Your task to perform on an android device: turn on javascript in the chrome app Image 0: 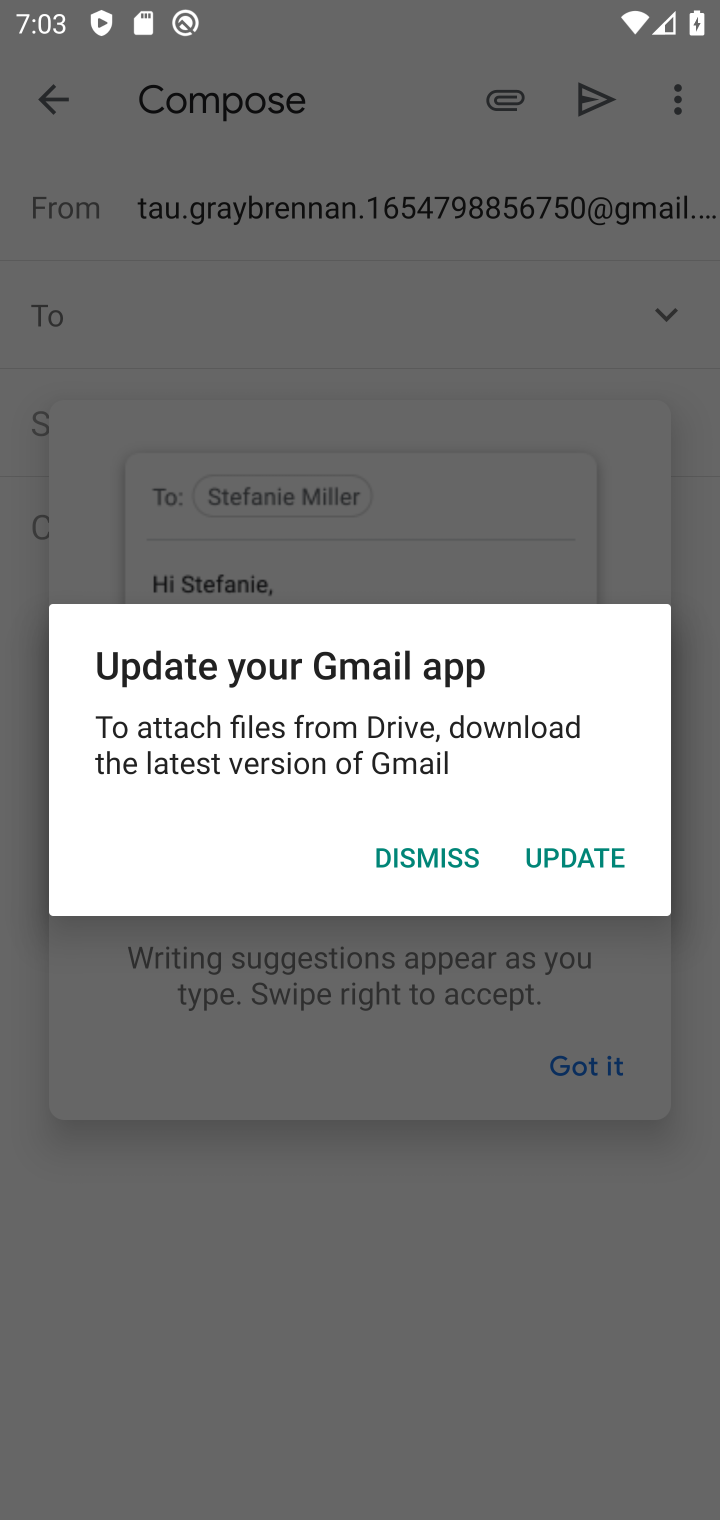
Step 0: press home button
Your task to perform on an android device: turn on javascript in the chrome app Image 1: 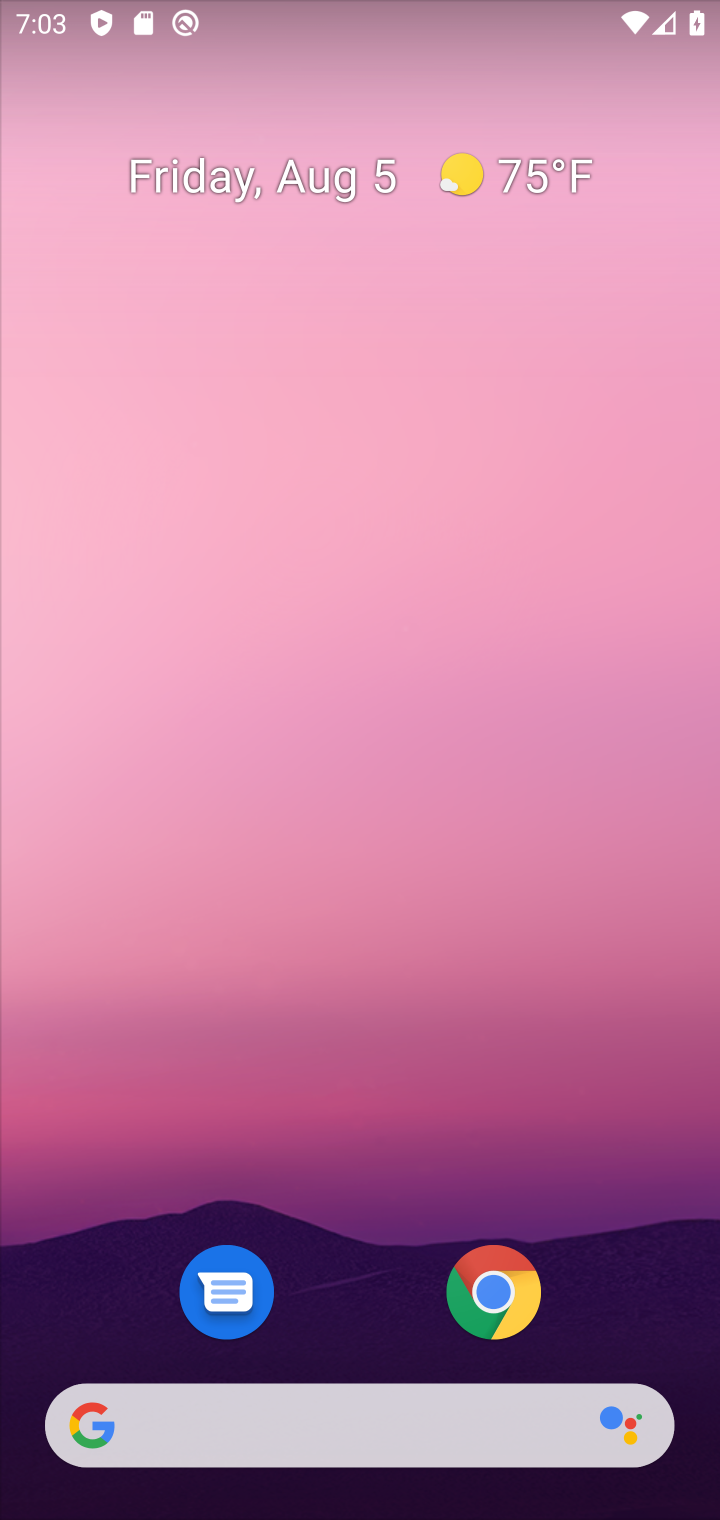
Step 1: click (502, 1295)
Your task to perform on an android device: turn on javascript in the chrome app Image 2: 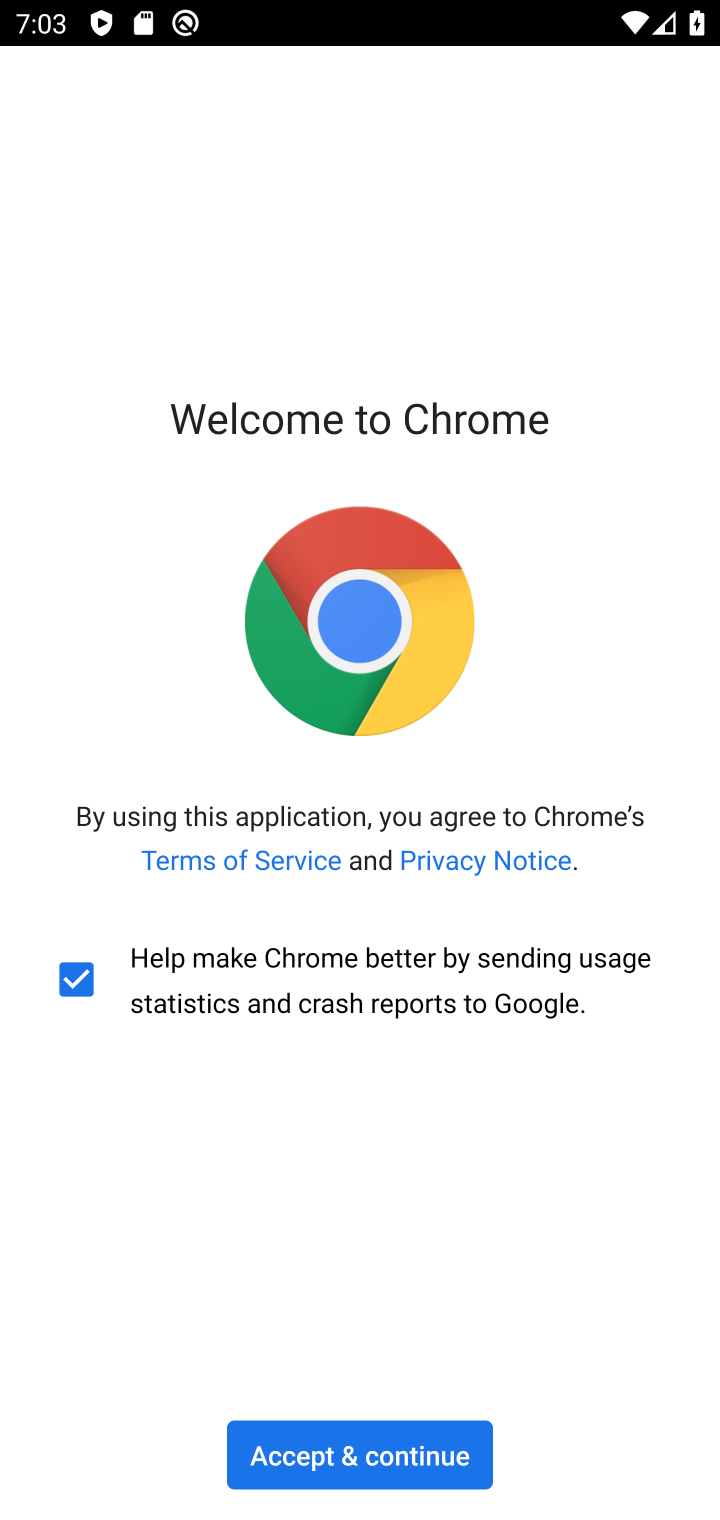
Step 2: click (423, 1455)
Your task to perform on an android device: turn on javascript in the chrome app Image 3: 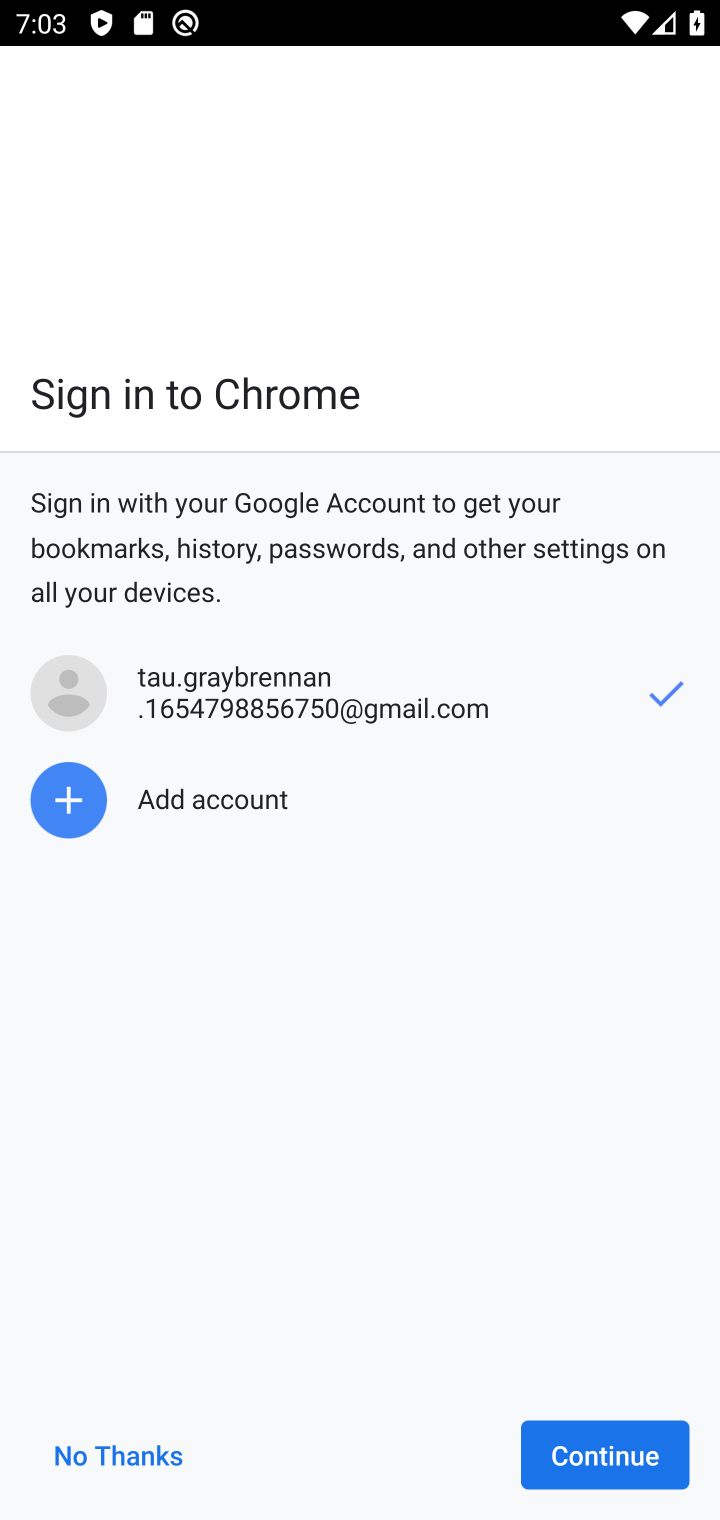
Step 3: click (555, 1455)
Your task to perform on an android device: turn on javascript in the chrome app Image 4: 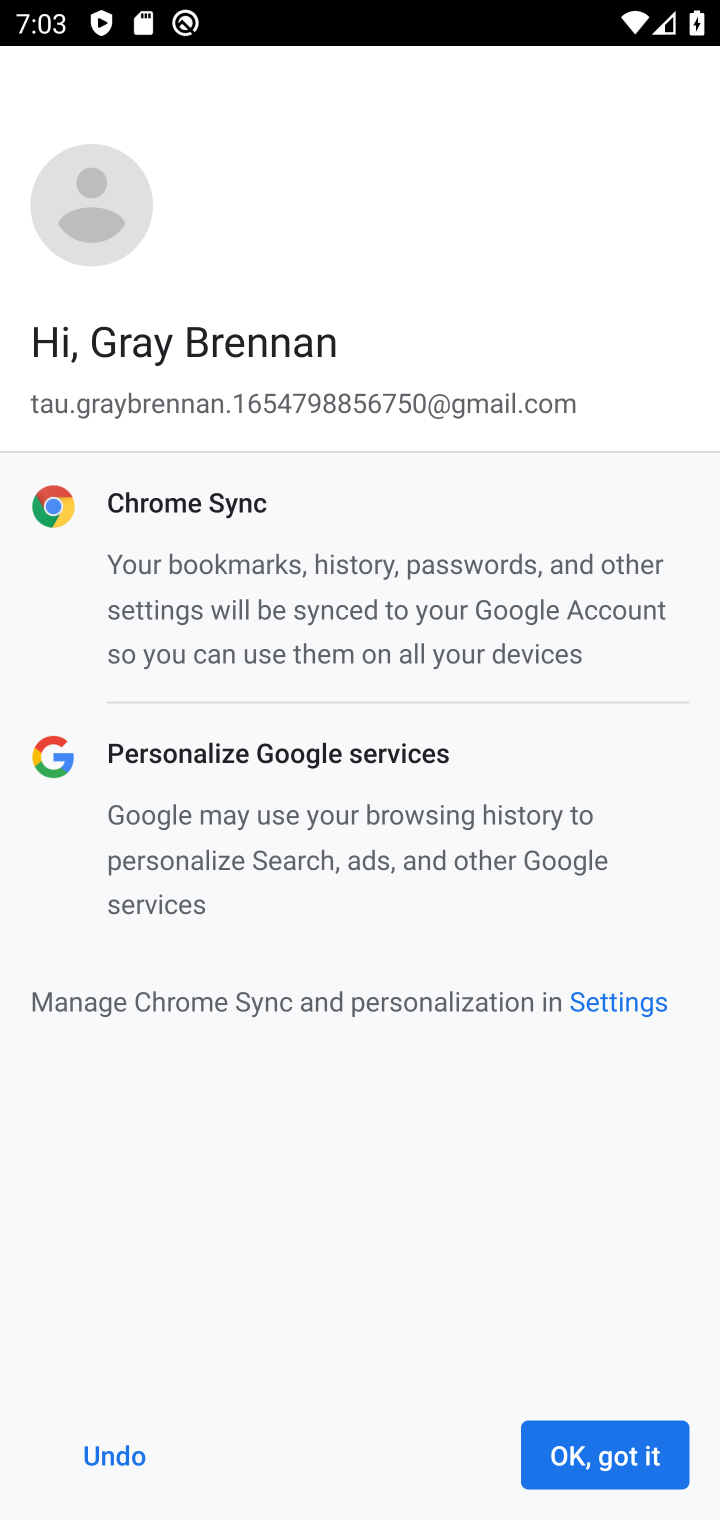
Step 4: click (555, 1455)
Your task to perform on an android device: turn on javascript in the chrome app Image 5: 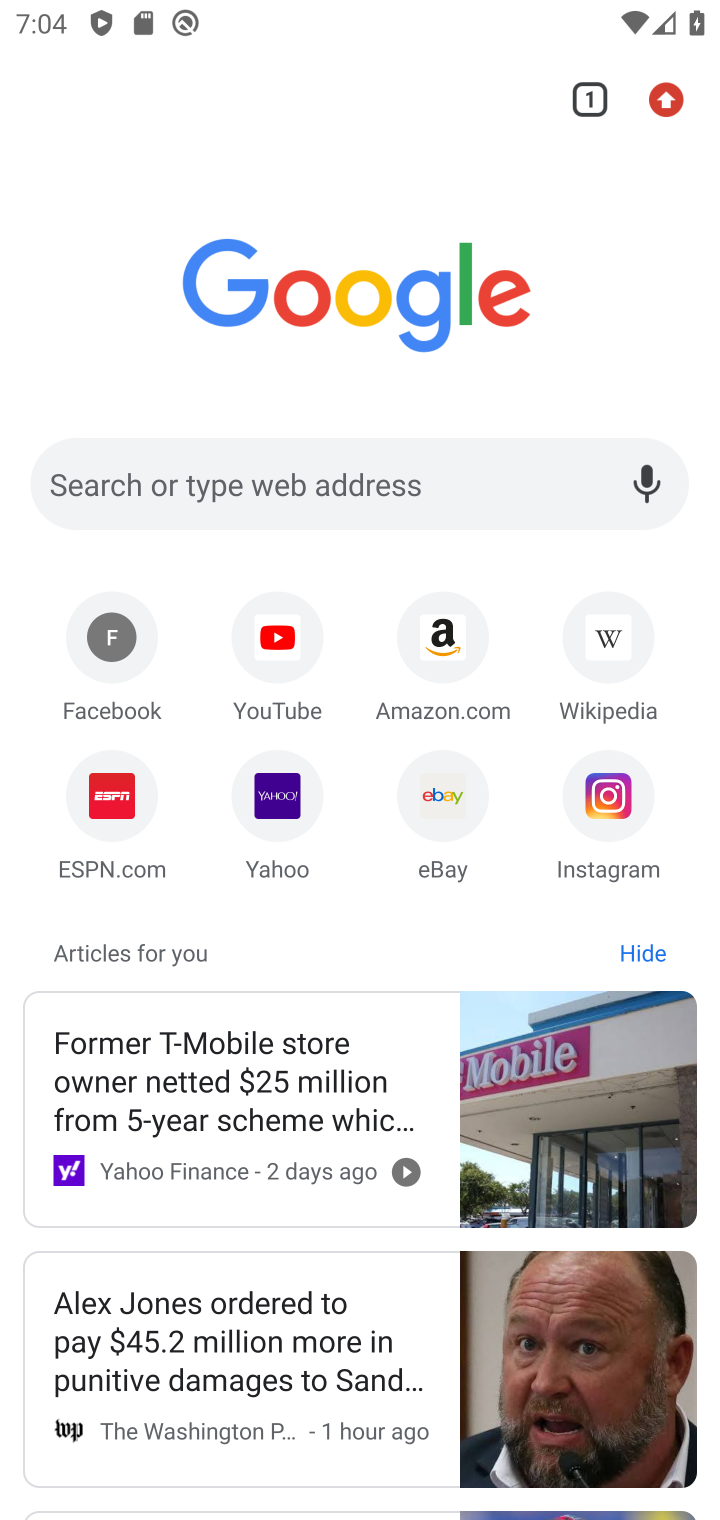
Step 5: click (670, 104)
Your task to perform on an android device: turn on javascript in the chrome app Image 6: 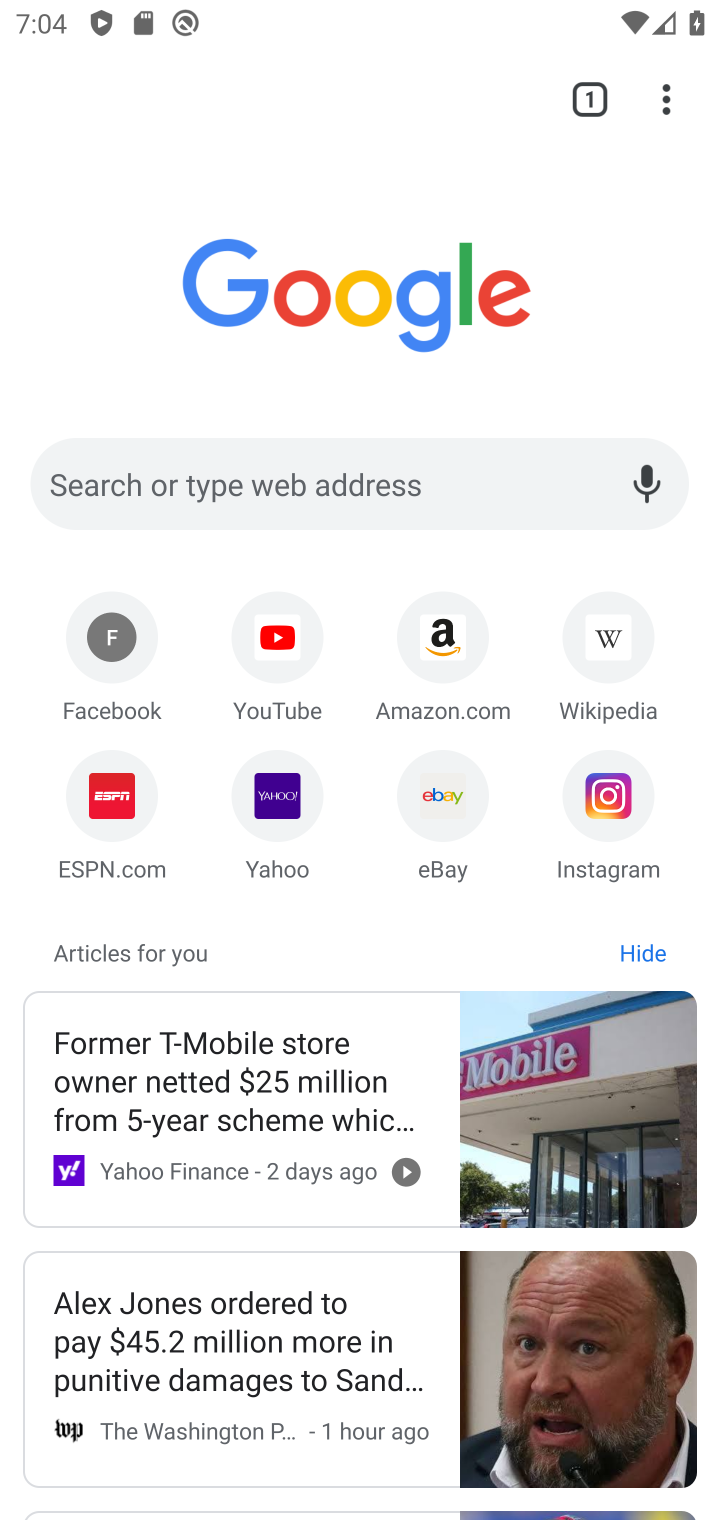
Step 6: click (668, 99)
Your task to perform on an android device: turn on javascript in the chrome app Image 7: 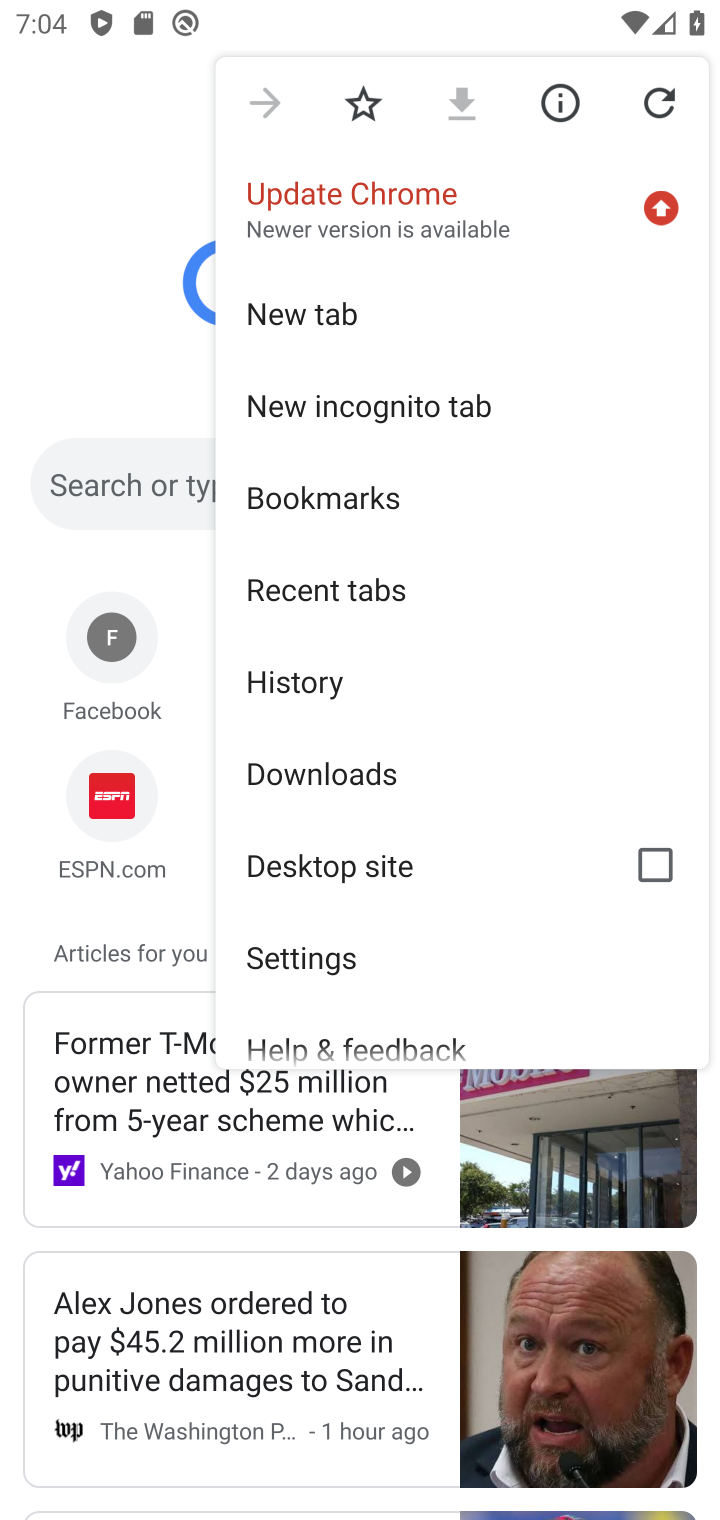
Step 7: click (327, 957)
Your task to perform on an android device: turn on javascript in the chrome app Image 8: 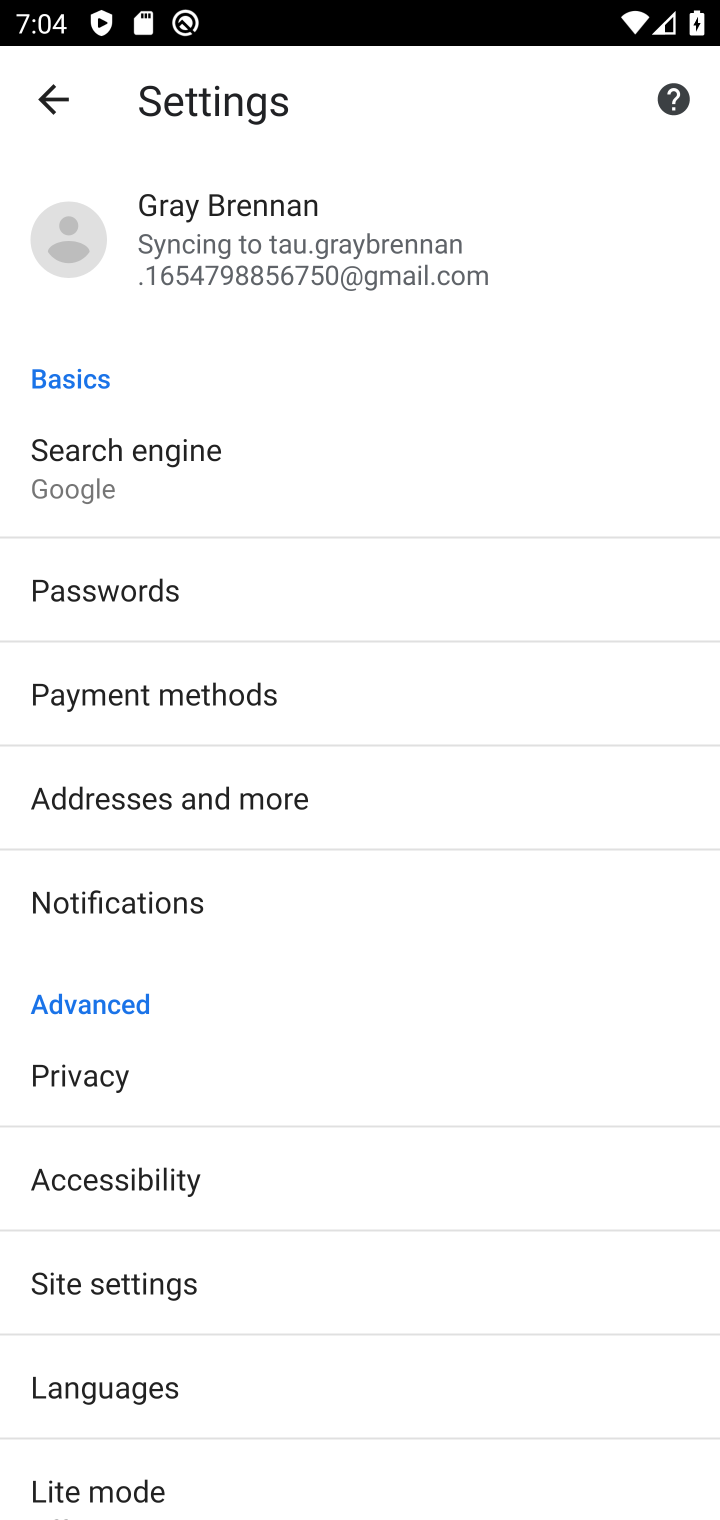
Step 8: click (206, 1271)
Your task to perform on an android device: turn on javascript in the chrome app Image 9: 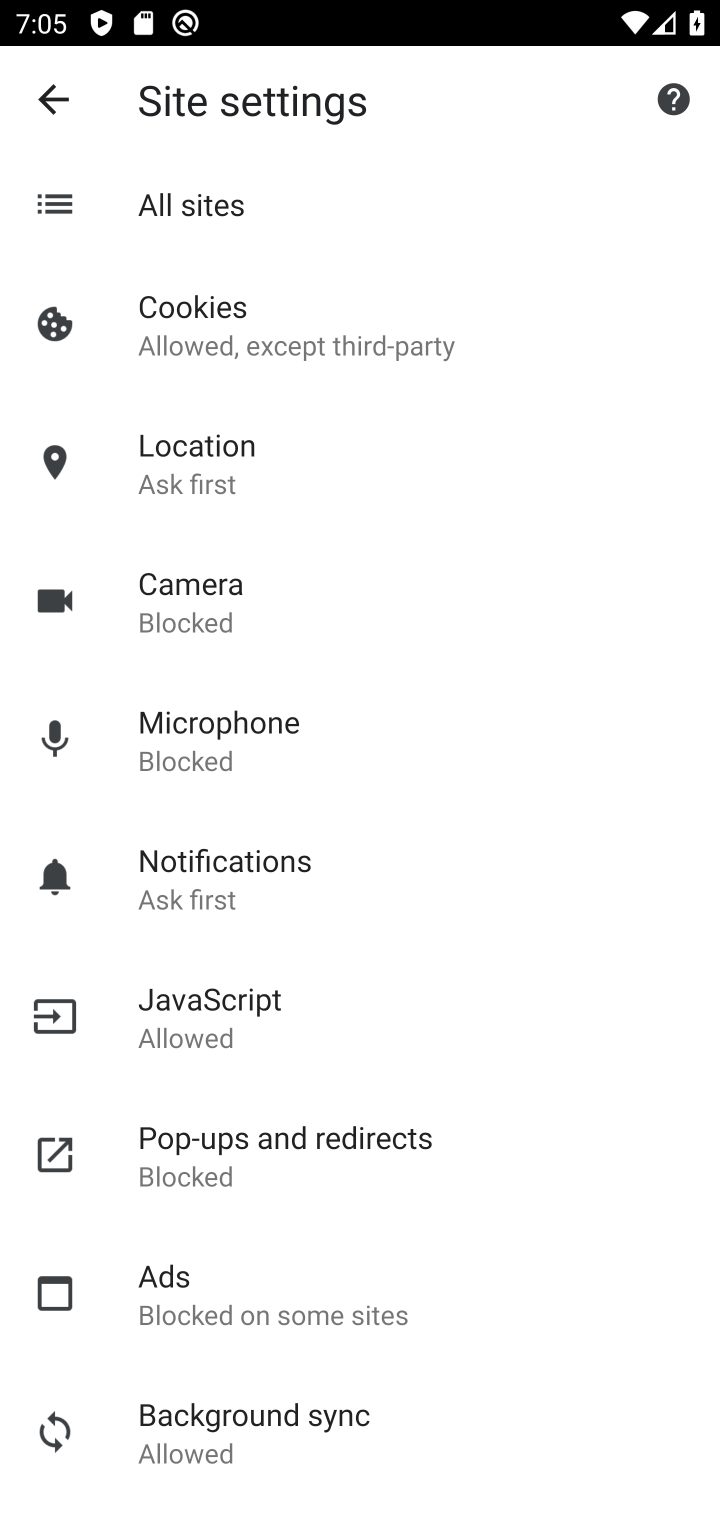
Step 9: click (247, 995)
Your task to perform on an android device: turn on javascript in the chrome app Image 10: 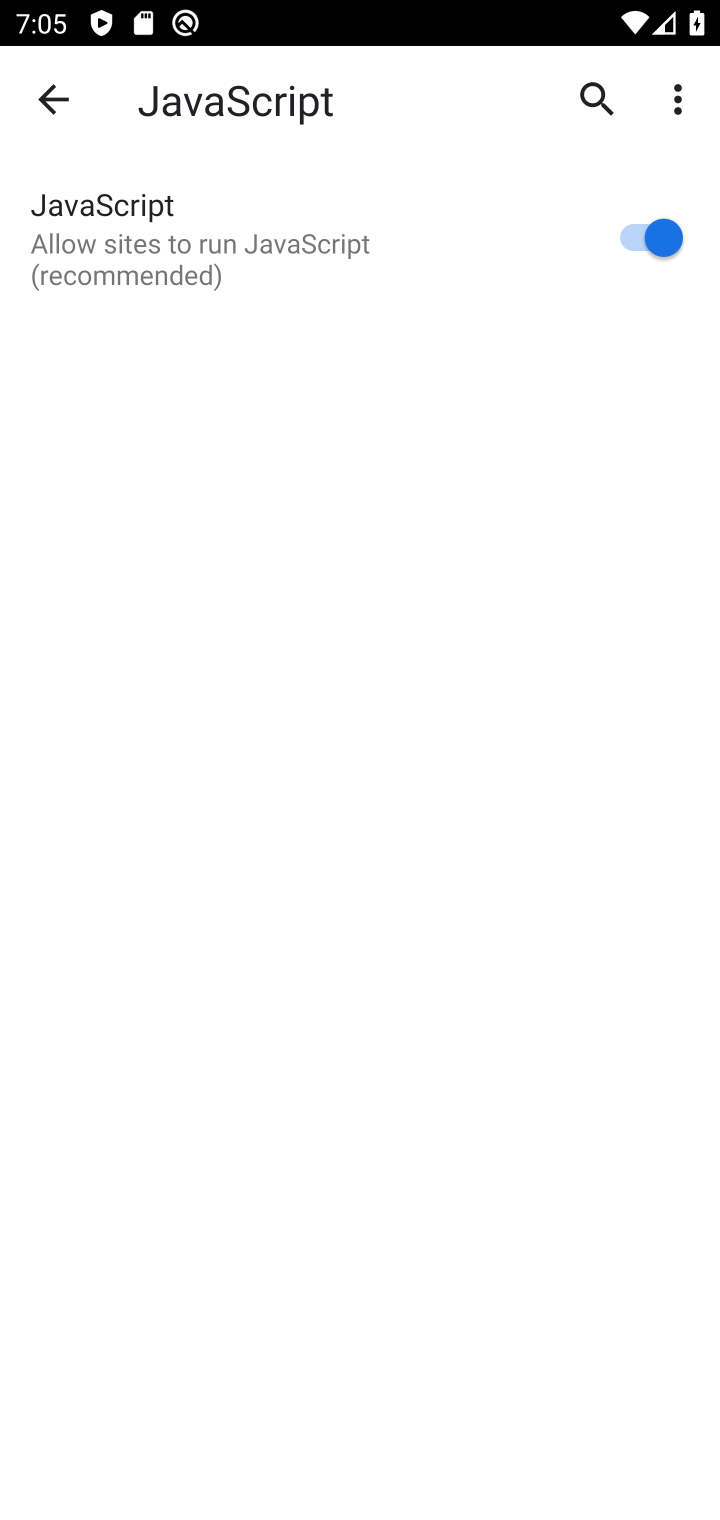
Step 10: task complete